Your task to perform on an android device: Go to privacy settings Image 0: 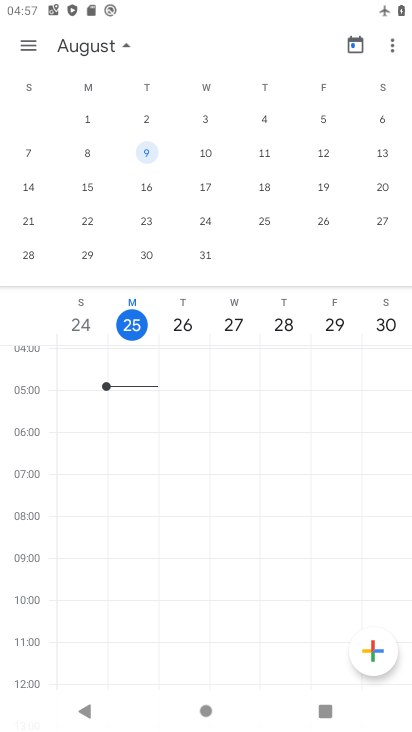
Step 0: press home button
Your task to perform on an android device: Go to privacy settings Image 1: 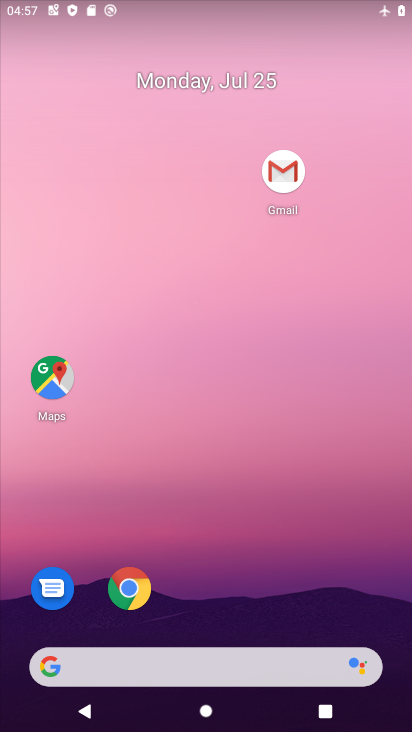
Step 1: drag from (248, 523) to (212, 7)
Your task to perform on an android device: Go to privacy settings Image 2: 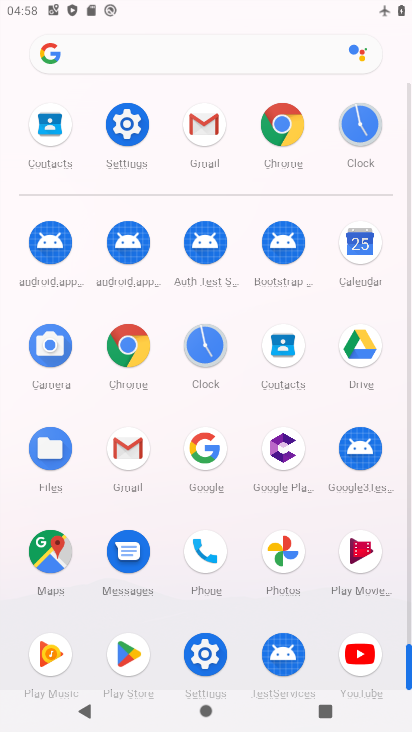
Step 2: click (124, 132)
Your task to perform on an android device: Go to privacy settings Image 3: 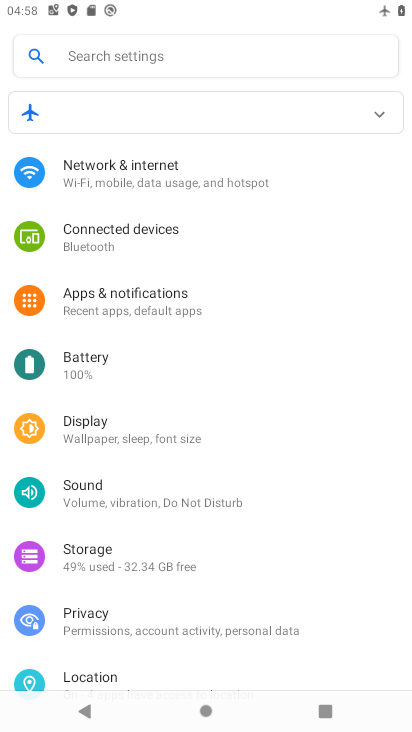
Step 3: click (96, 619)
Your task to perform on an android device: Go to privacy settings Image 4: 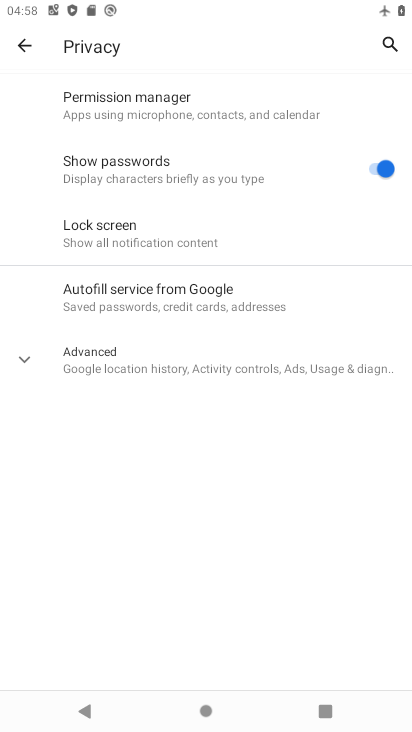
Step 4: task complete